Your task to perform on an android device: delete a single message in the gmail app Image 0: 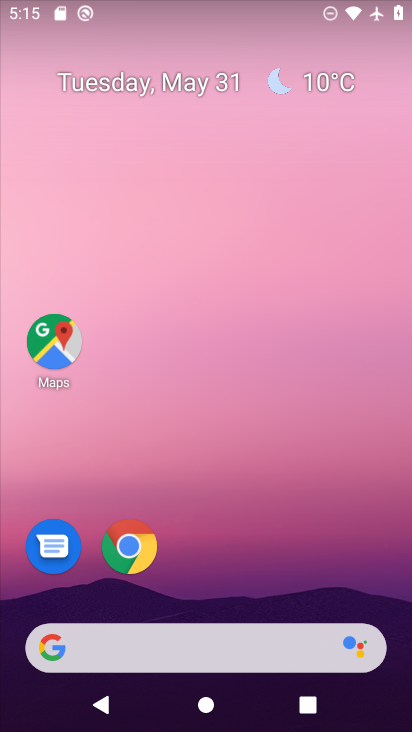
Step 0: drag from (272, 447) to (148, 8)
Your task to perform on an android device: delete a single message in the gmail app Image 1: 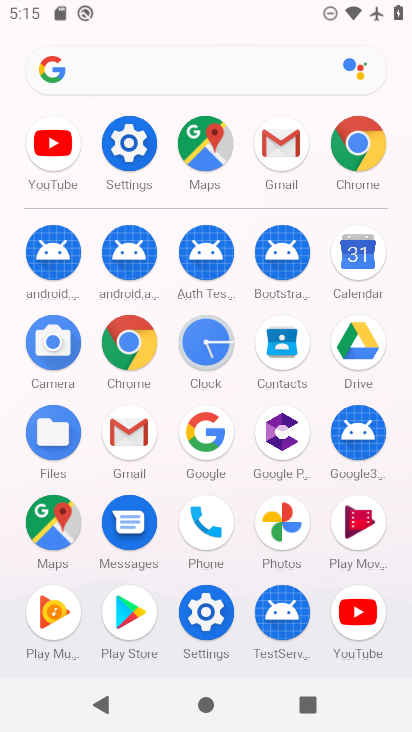
Step 1: click (282, 139)
Your task to perform on an android device: delete a single message in the gmail app Image 2: 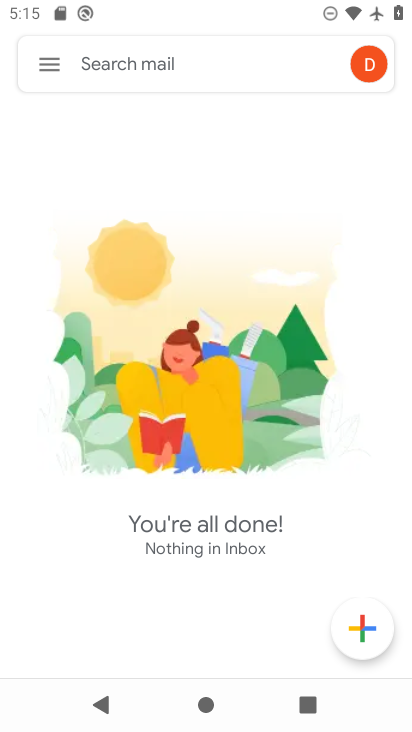
Step 2: click (48, 55)
Your task to perform on an android device: delete a single message in the gmail app Image 3: 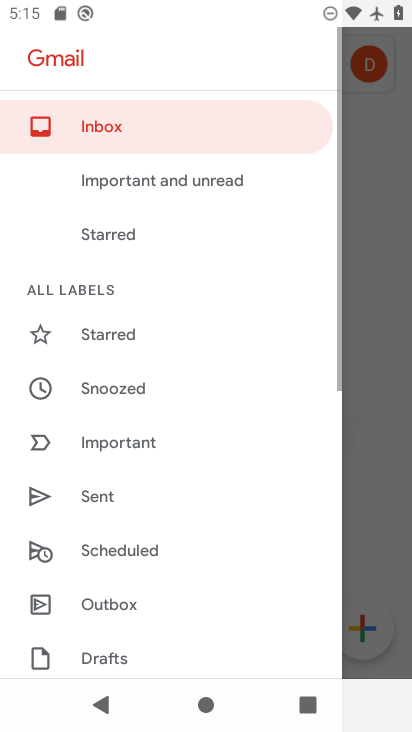
Step 3: drag from (189, 550) to (155, 89)
Your task to perform on an android device: delete a single message in the gmail app Image 4: 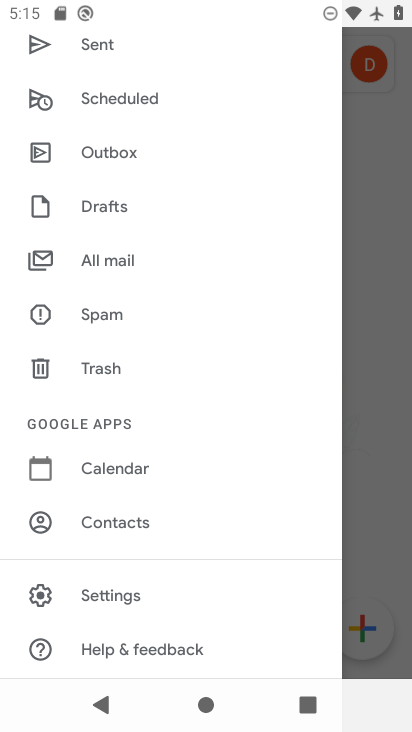
Step 4: click (156, 263)
Your task to perform on an android device: delete a single message in the gmail app Image 5: 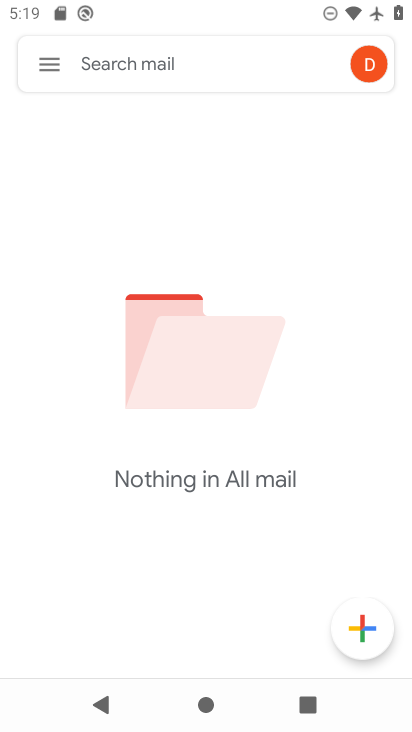
Step 5: task complete